Your task to perform on an android device: What's the weather going to be this weekend? Image 0: 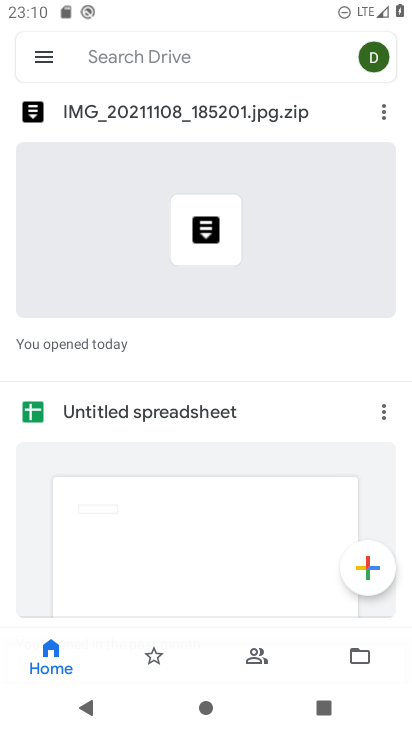
Step 0: press back button
Your task to perform on an android device: What's the weather going to be this weekend? Image 1: 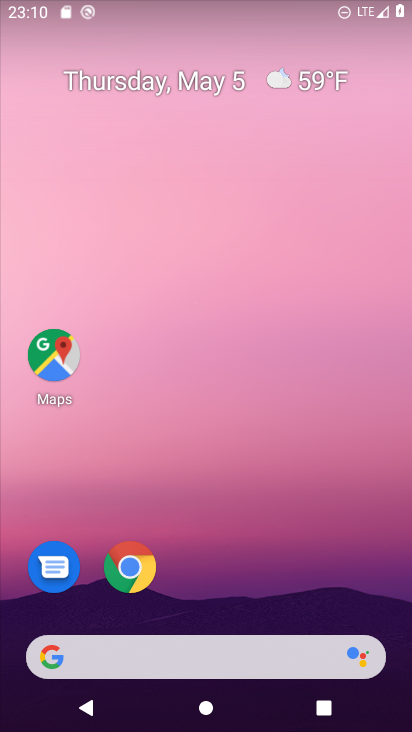
Step 1: drag from (199, 587) to (273, 142)
Your task to perform on an android device: What's the weather going to be this weekend? Image 2: 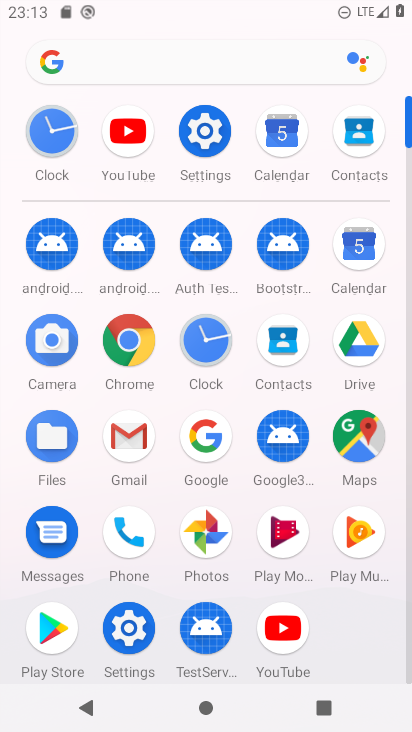
Step 2: click (138, 61)
Your task to perform on an android device: What's the weather going to be this weekend? Image 3: 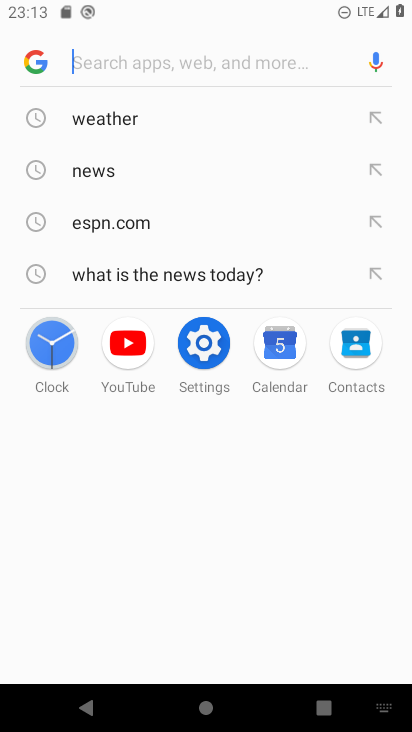
Step 3: click (112, 133)
Your task to perform on an android device: What's the weather going to be this weekend? Image 4: 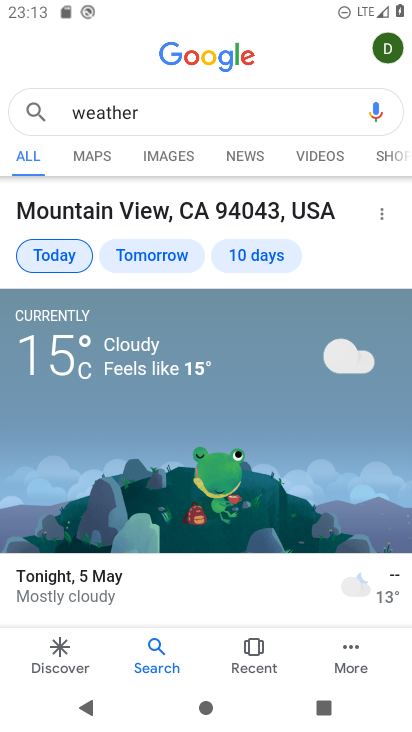
Step 4: click (239, 253)
Your task to perform on an android device: What's the weather going to be this weekend? Image 5: 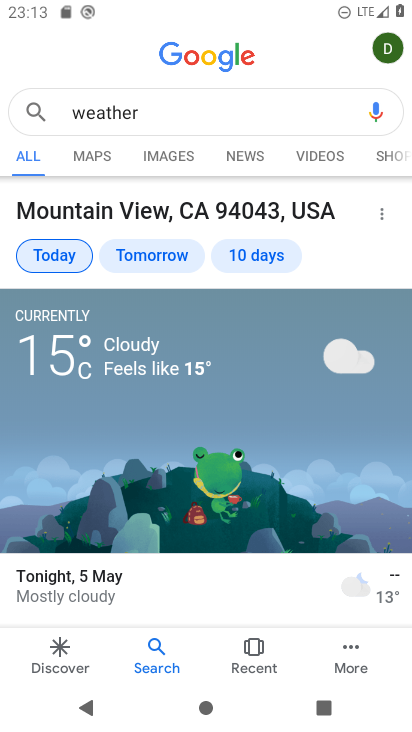
Step 5: task complete